Your task to perform on an android device: turn on location history Image 0: 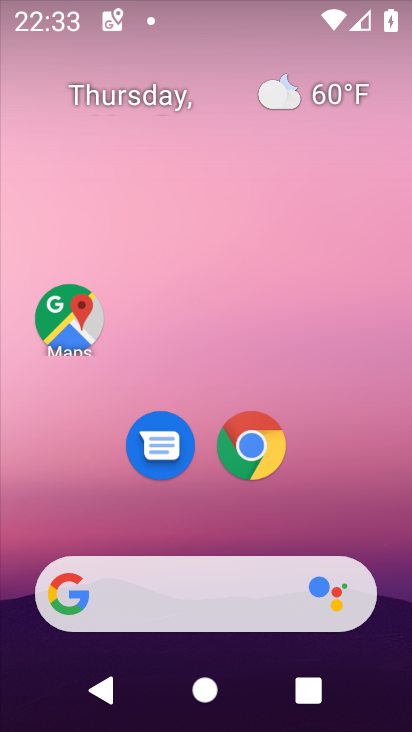
Step 0: drag from (166, 583) to (1, 306)
Your task to perform on an android device: turn on location history Image 1: 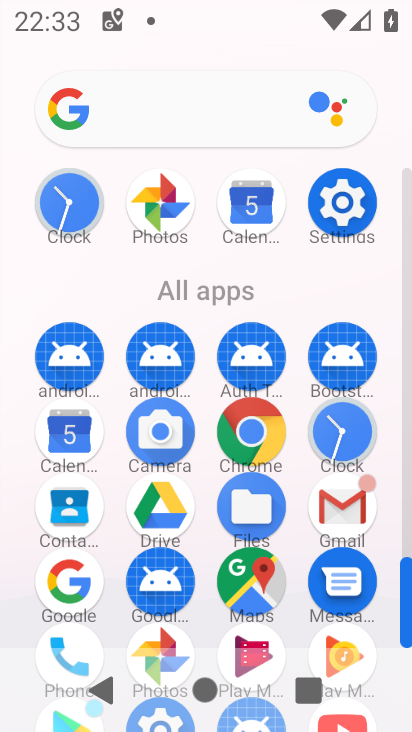
Step 1: click (340, 208)
Your task to perform on an android device: turn on location history Image 2: 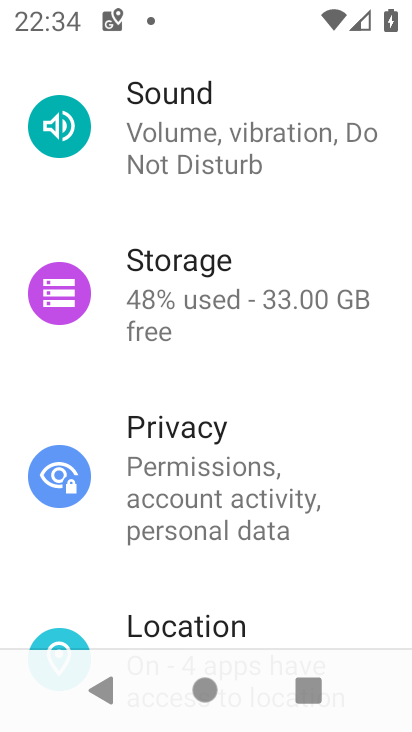
Step 2: click (197, 619)
Your task to perform on an android device: turn on location history Image 3: 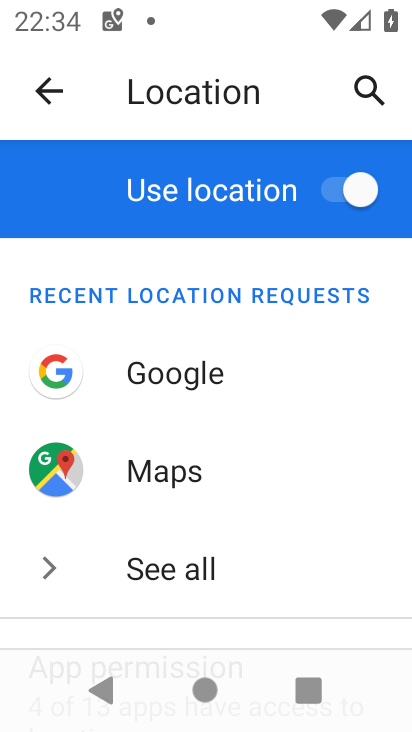
Step 3: drag from (275, 619) to (207, 120)
Your task to perform on an android device: turn on location history Image 4: 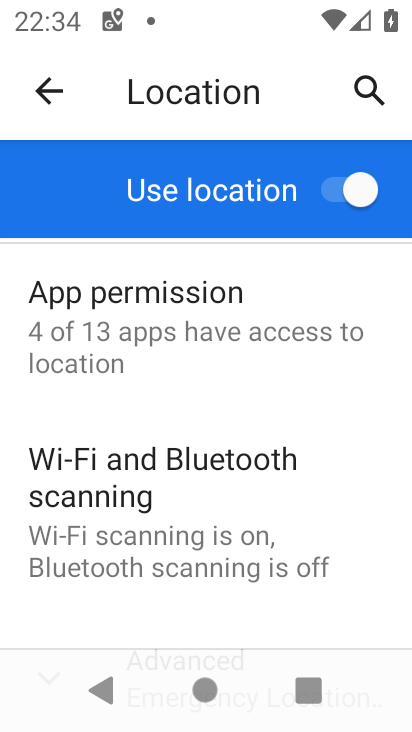
Step 4: drag from (226, 552) to (234, 268)
Your task to perform on an android device: turn on location history Image 5: 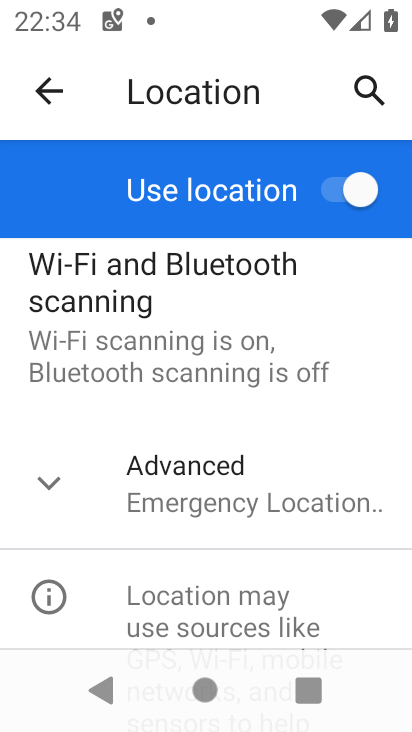
Step 5: click (184, 465)
Your task to perform on an android device: turn on location history Image 6: 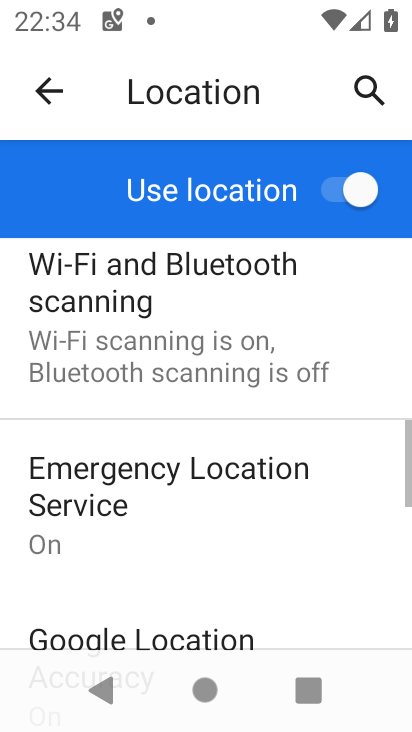
Step 6: drag from (215, 578) to (230, 265)
Your task to perform on an android device: turn on location history Image 7: 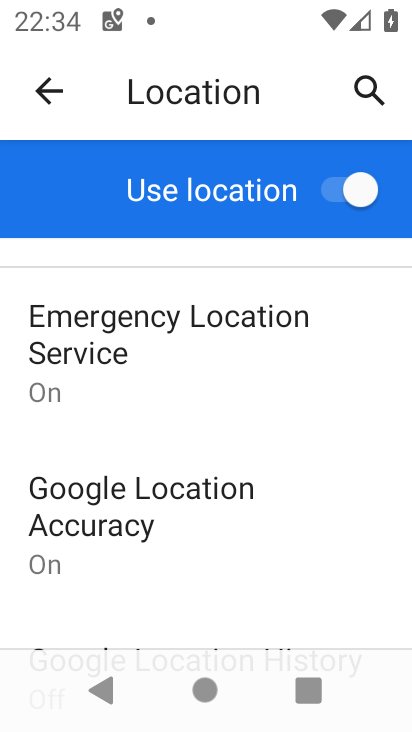
Step 7: drag from (181, 540) to (168, 43)
Your task to perform on an android device: turn on location history Image 8: 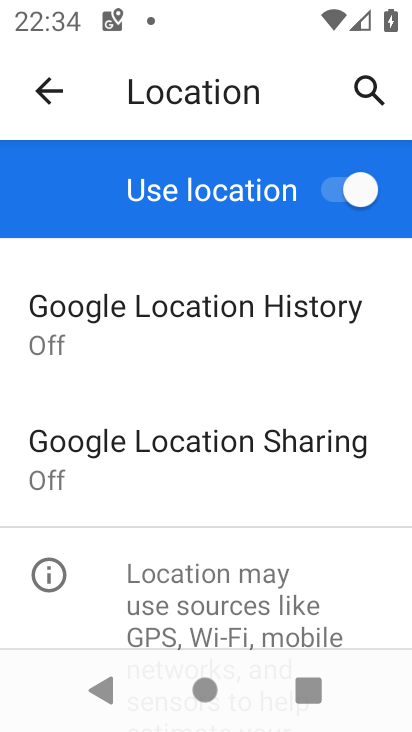
Step 8: click (203, 314)
Your task to perform on an android device: turn on location history Image 9: 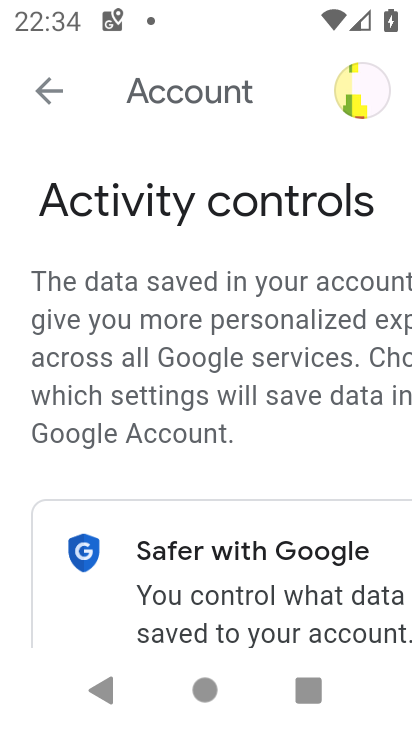
Step 9: drag from (79, 470) to (110, 2)
Your task to perform on an android device: turn on location history Image 10: 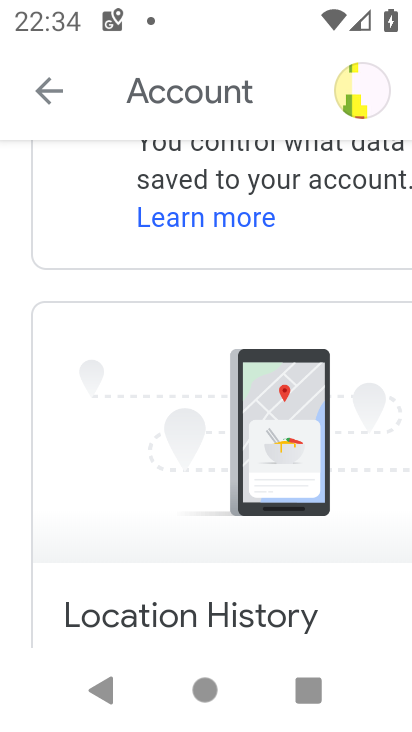
Step 10: drag from (200, 408) to (344, 13)
Your task to perform on an android device: turn on location history Image 11: 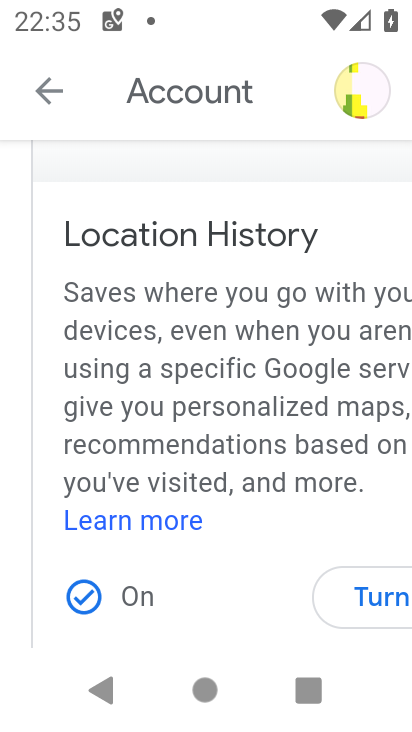
Step 11: click (346, 597)
Your task to perform on an android device: turn on location history Image 12: 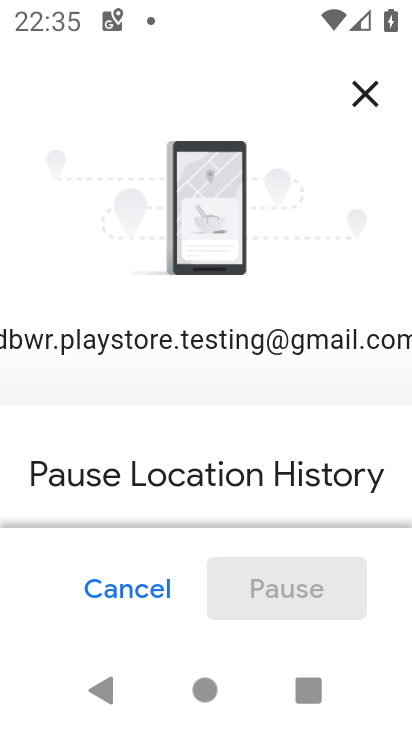
Step 12: click (367, 93)
Your task to perform on an android device: turn on location history Image 13: 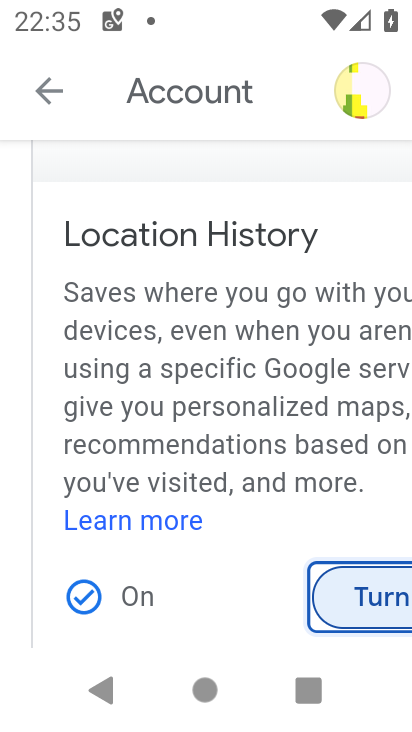
Step 13: task complete